Your task to perform on an android device: open wifi settings Image 0: 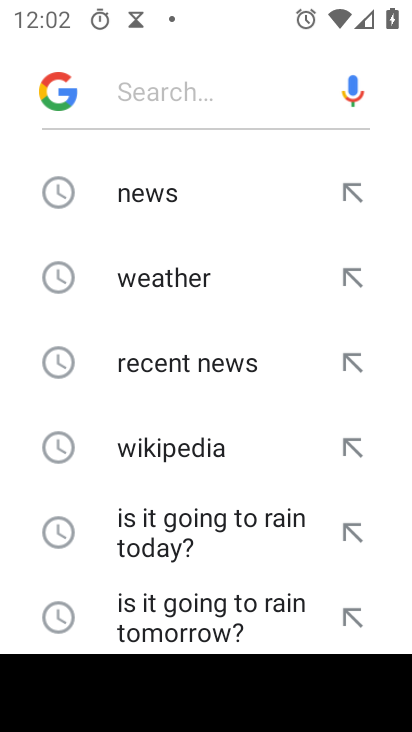
Step 0: press home button
Your task to perform on an android device: open wifi settings Image 1: 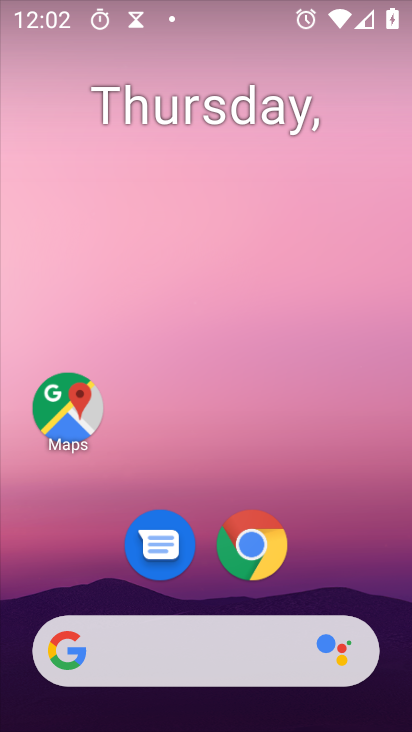
Step 1: drag from (177, 655) to (300, 76)
Your task to perform on an android device: open wifi settings Image 2: 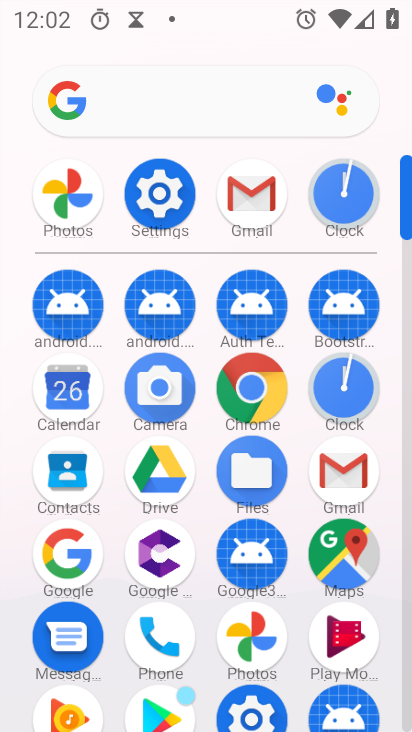
Step 2: click (154, 185)
Your task to perform on an android device: open wifi settings Image 3: 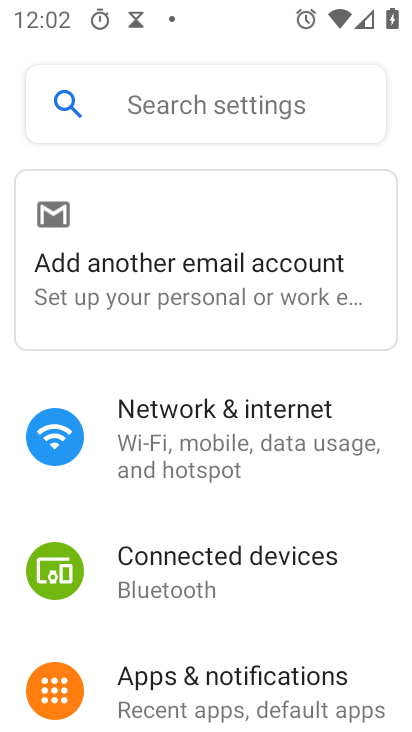
Step 3: click (179, 436)
Your task to perform on an android device: open wifi settings Image 4: 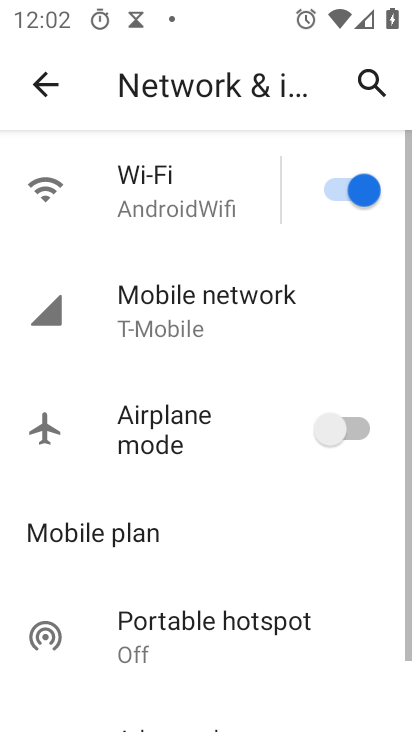
Step 4: click (141, 197)
Your task to perform on an android device: open wifi settings Image 5: 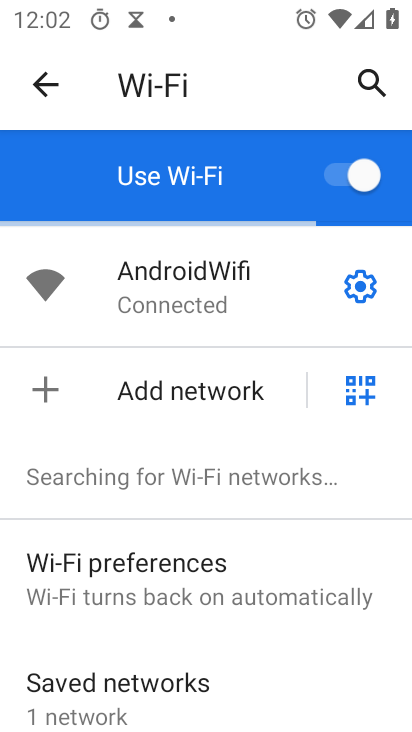
Step 5: task complete